Your task to perform on an android device: Search for the best 4K TV Image 0: 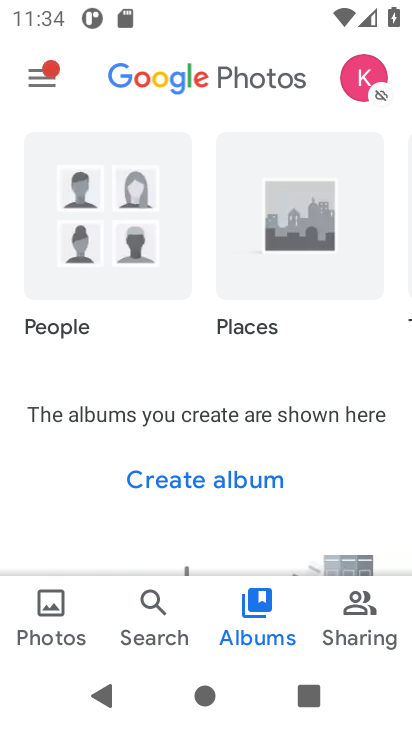
Step 0: click (321, 596)
Your task to perform on an android device: Search for the best 4K TV Image 1: 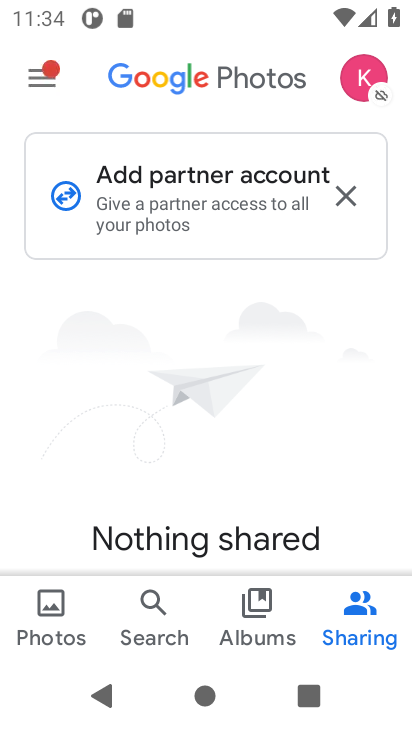
Step 1: task complete